Your task to perform on an android device: Open Youtube and go to the subscriptions tab Image 0: 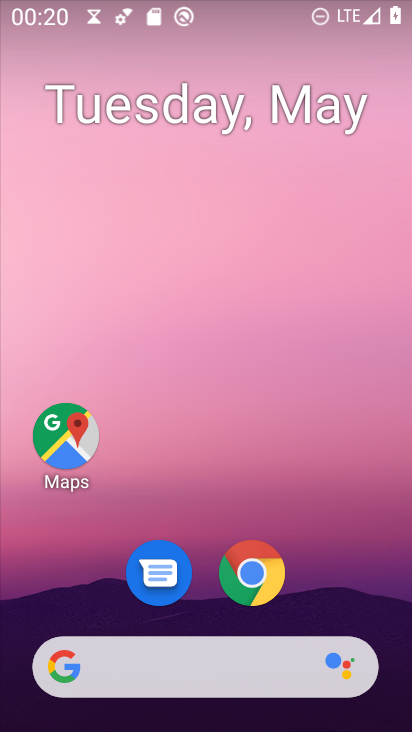
Step 0: drag from (348, 587) to (224, 46)
Your task to perform on an android device: Open Youtube and go to the subscriptions tab Image 1: 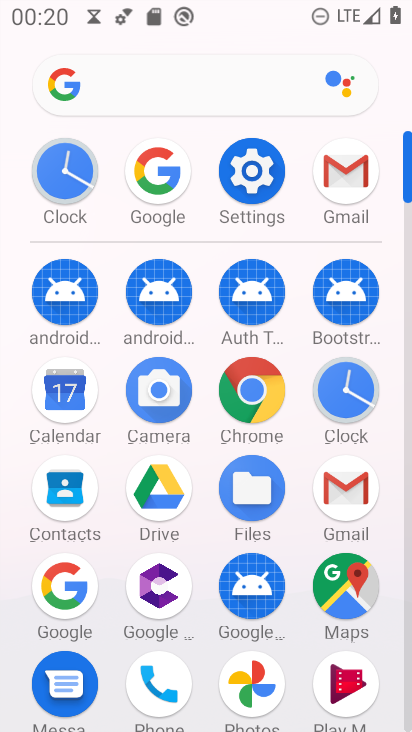
Step 1: drag from (294, 638) to (289, 117)
Your task to perform on an android device: Open Youtube and go to the subscriptions tab Image 2: 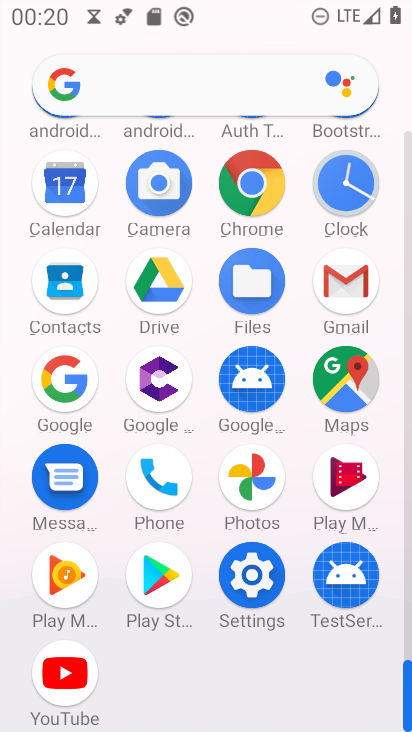
Step 2: click (78, 666)
Your task to perform on an android device: Open Youtube and go to the subscriptions tab Image 3: 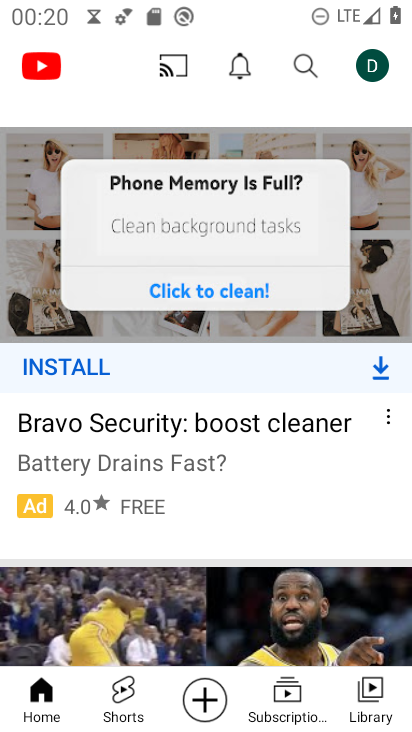
Step 3: click (295, 704)
Your task to perform on an android device: Open Youtube and go to the subscriptions tab Image 4: 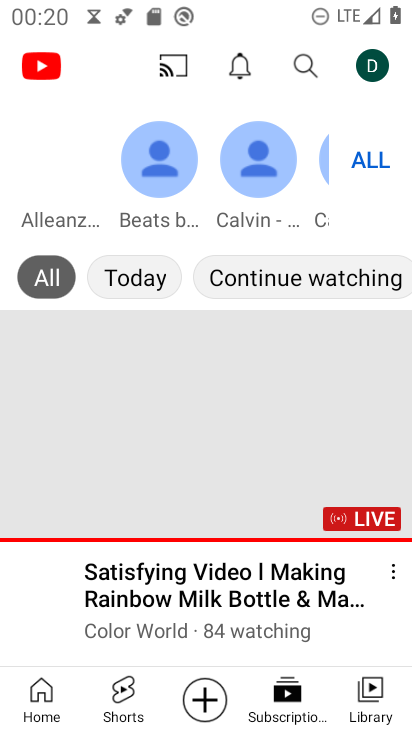
Step 4: task complete